Your task to perform on an android device: turn on translation in the chrome app Image 0: 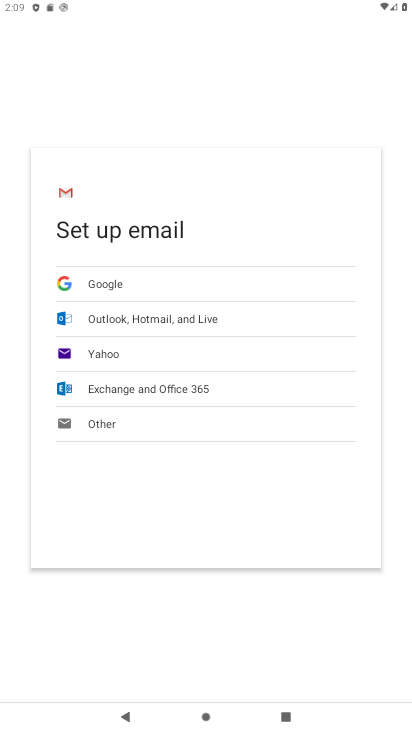
Step 0: press home button
Your task to perform on an android device: turn on translation in the chrome app Image 1: 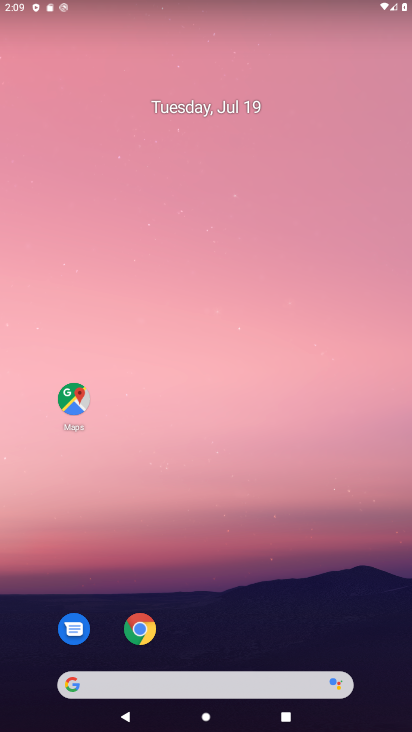
Step 1: click (145, 641)
Your task to perform on an android device: turn on translation in the chrome app Image 2: 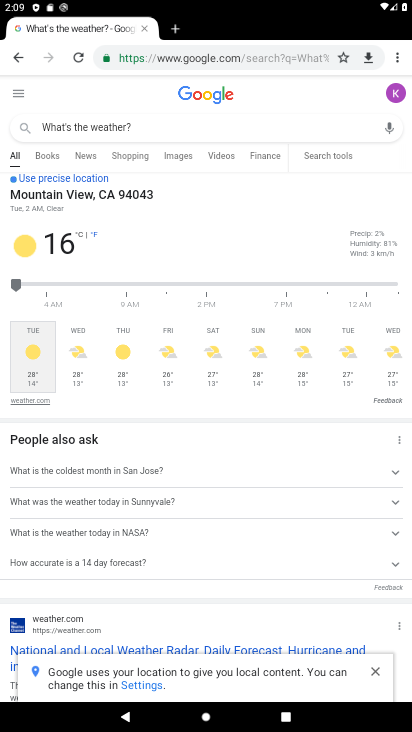
Step 2: drag from (400, 61) to (339, 345)
Your task to perform on an android device: turn on translation in the chrome app Image 3: 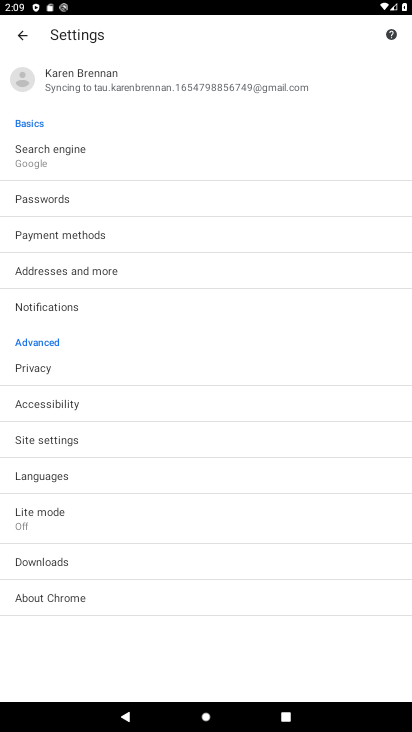
Step 3: click (113, 475)
Your task to perform on an android device: turn on translation in the chrome app Image 4: 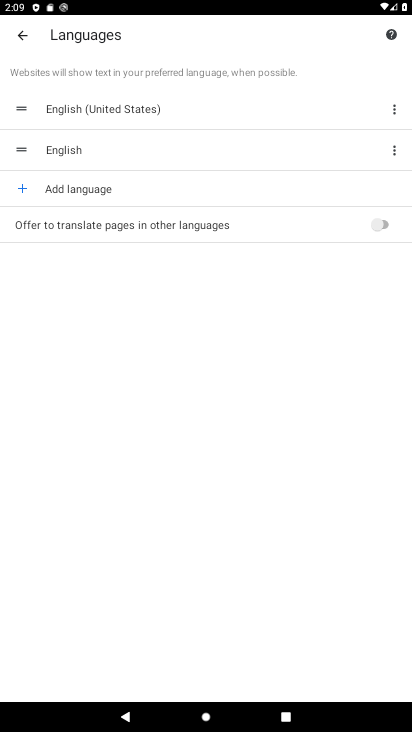
Step 4: click (389, 222)
Your task to perform on an android device: turn on translation in the chrome app Image 5: 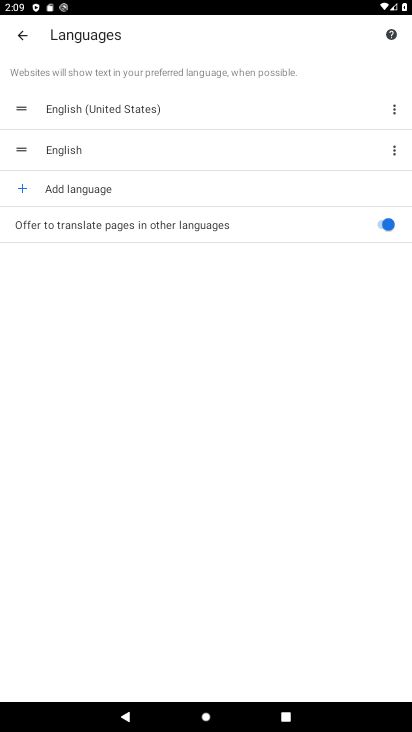
Step 5: task complete